Your task to perform on an android device: Go to display settings Image 0: 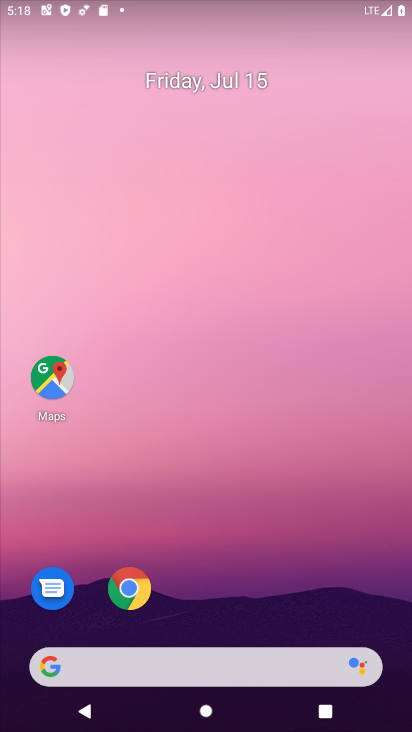
Step 0: drag from (261, 646) to (318, 98)
Your task to perform on an android device: Go to display settings Image 1: 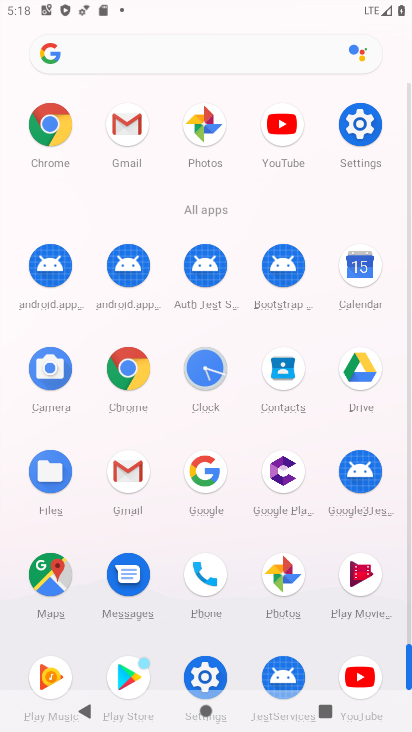
Step 1: click (355, 125)
Your task to perform on an android device: Go to display settings Image 2: 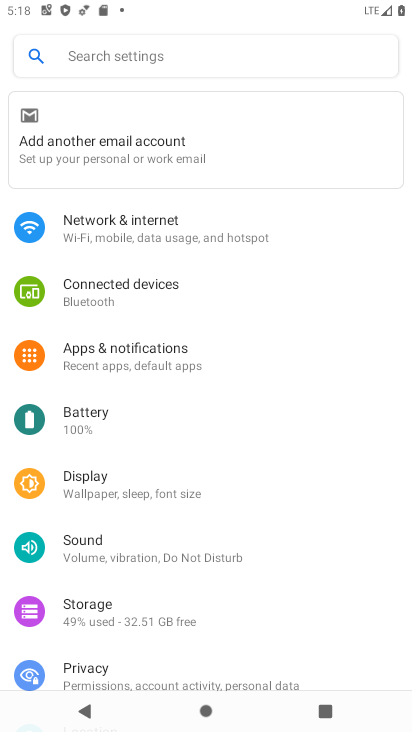
Step 2: click (136, 482)
Your task to perform on an android device: Go to display settings Image 3: 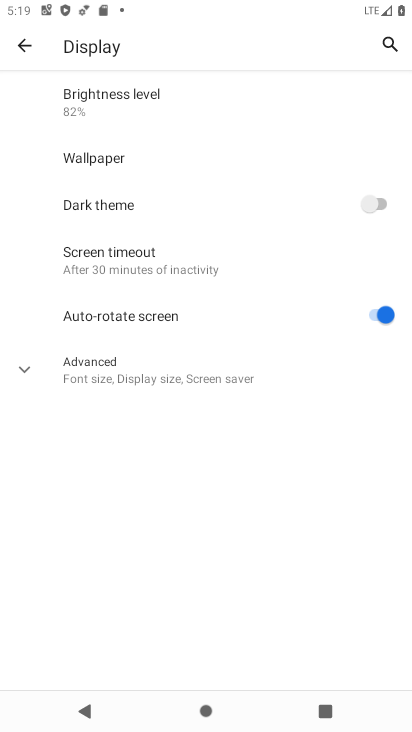
Step 3: task complete